Your task to perform on an android device: change your default location settings in chrome Image 0: 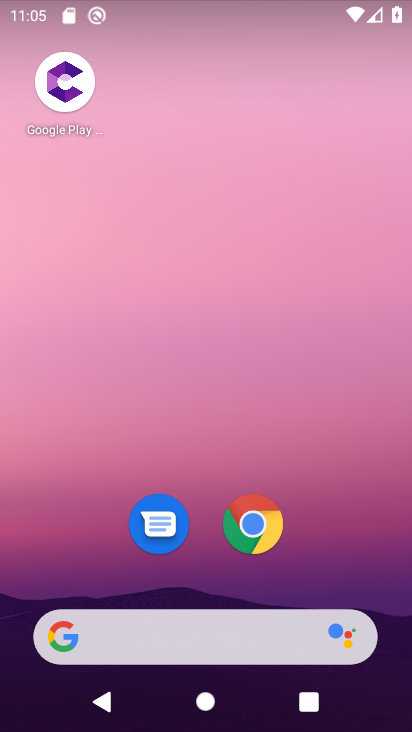
Step 0: click (251, 520)
Your task to perform on an android device: change your default location settings in chrome Image 1: 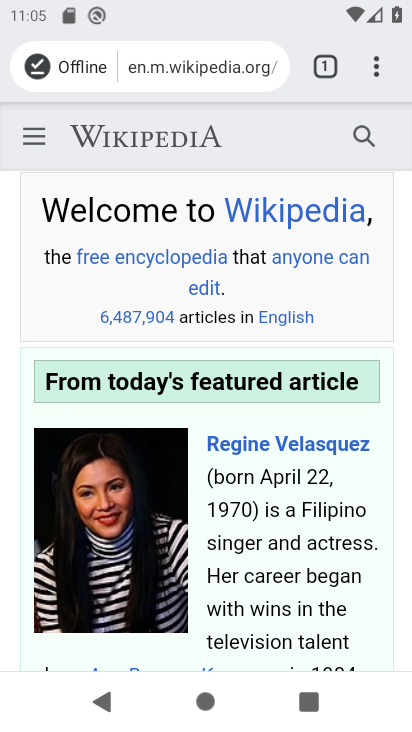
Step 1: drag from (379, 74) to (249, 545)
Your task to perform on an android device: change your default location settings in chrome Image 2: 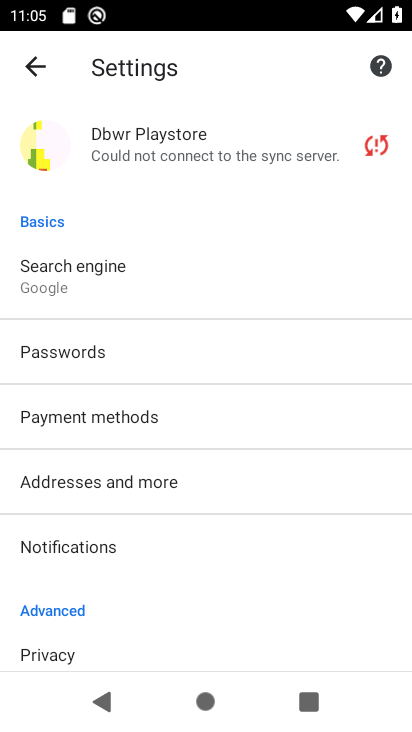
Step 2: drag from (242, 575) to (238, 226)
Your task to perform on an android device: change your default location settings in chrome Image 3: 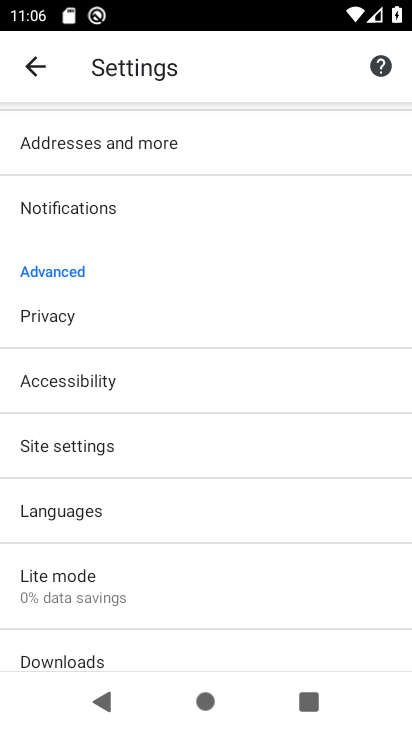
Step 3: click (120, 439)
Your task to perform on an android device: change your default location settings in chrome Image 4: 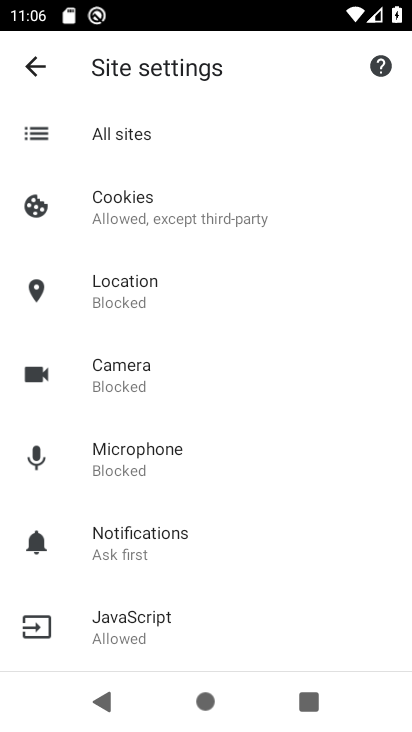
Step 4: click (166, 273)
Your task to perform on an android device: change your default location settings in chrome Image 5: 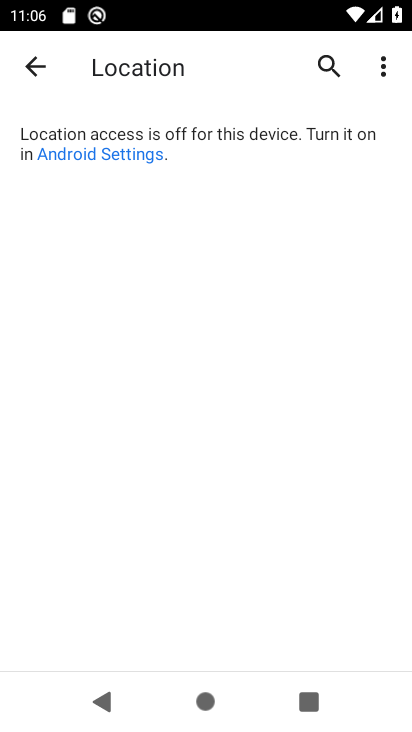
Step 5: click (119, 149)
Your task to perform on an android device: change your default location settings in chrome Image 6: 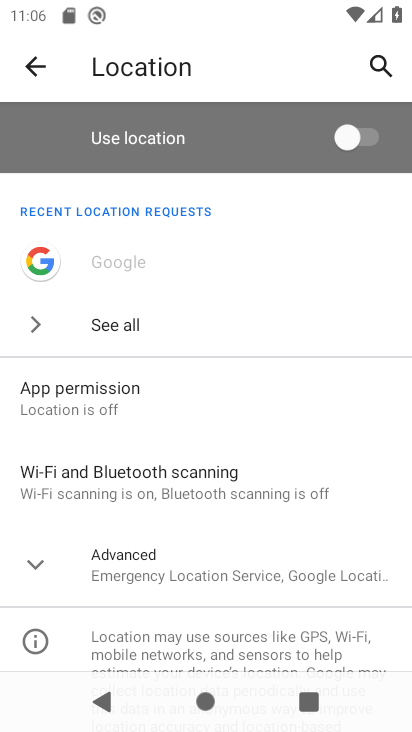
Step 6: click (359, 126)
Your task to perform on an android device: change your default location settings in chrome Image 7: 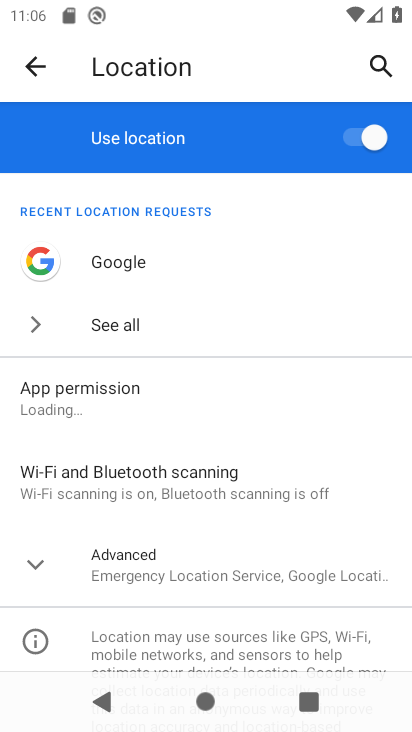
Step 7: task complete